Your task to perform on an android device: find photos in the google photos app Image 0: 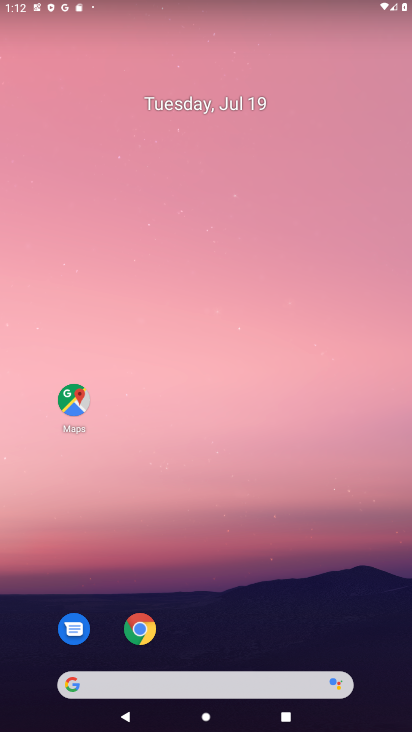
Step 0: drag from (217, 598) to (390, 14)
Your task to perform on an android device: find photos in the google photos app Image 1: 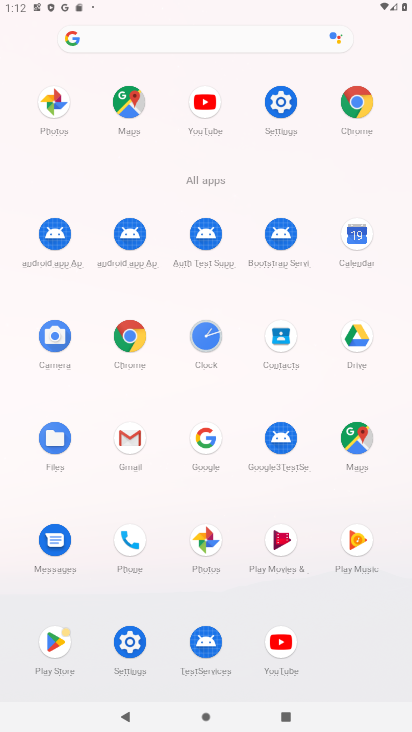
Step 1: click (210, 548)
Your task to perform on an android device: find photos in the google photos app Image 2: 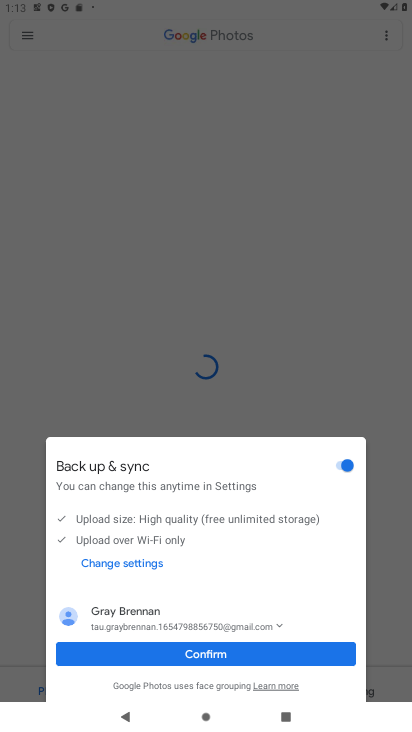
Step 2: click (222, 647)
Your task to perform on an android device: find photos in the google photos app Image 3: 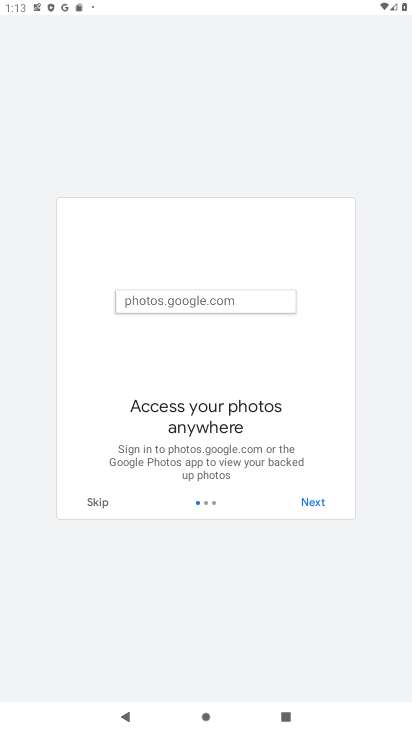
Step 3: click (111, 487)
Your task to perform on an android device: find photos in the google photos app Image 4: 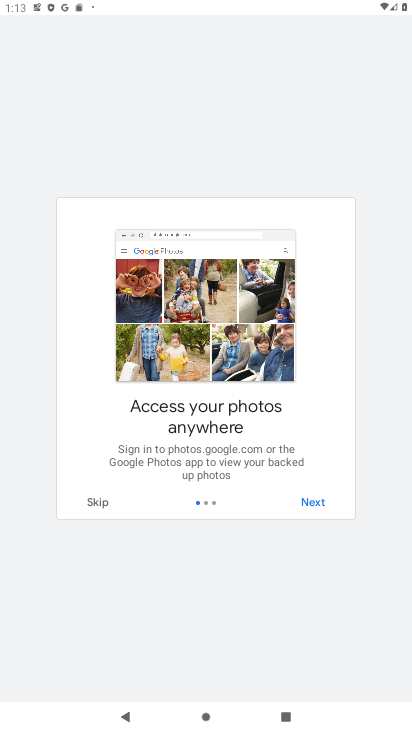
Step 4: click (99, 501)
Your task to perform on an android device: find photos in the google photos app Image 5: 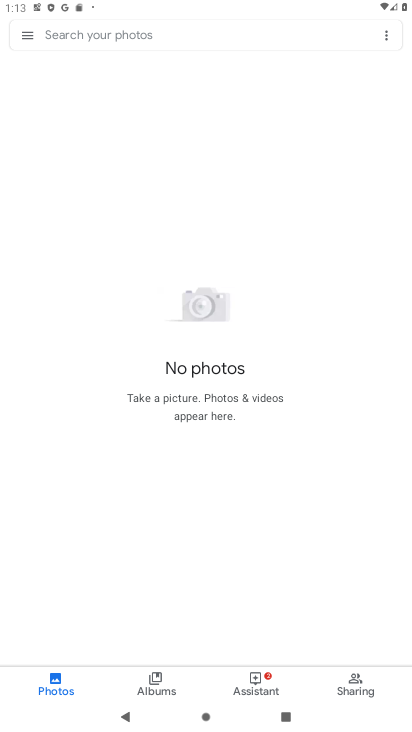
Step 5: task complete